Your task to perform on an android device: Open Android settings Image 0: 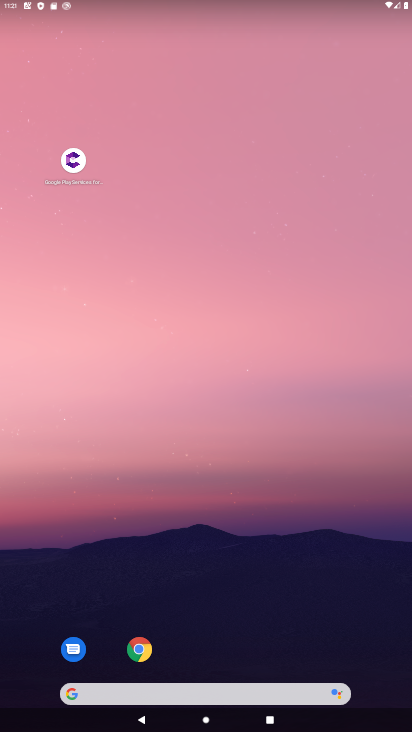
Step 0: press home button
Your task to perform on an android device: Open Android settings Image 1: 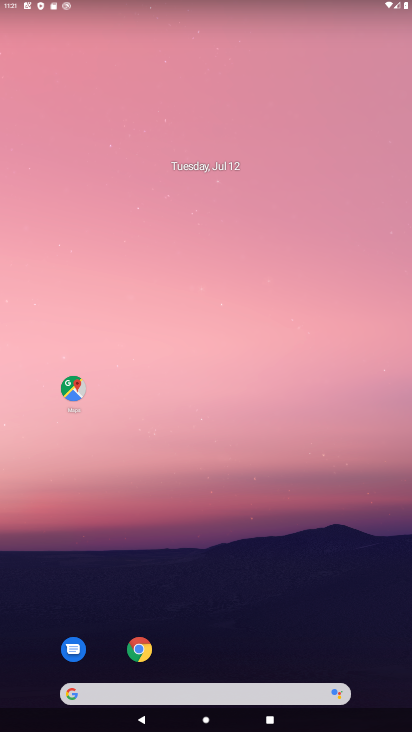
Step 1: drag from (216, 629) to (283, 12)
Your task to perform on an android device: Open Android settings Image 2: 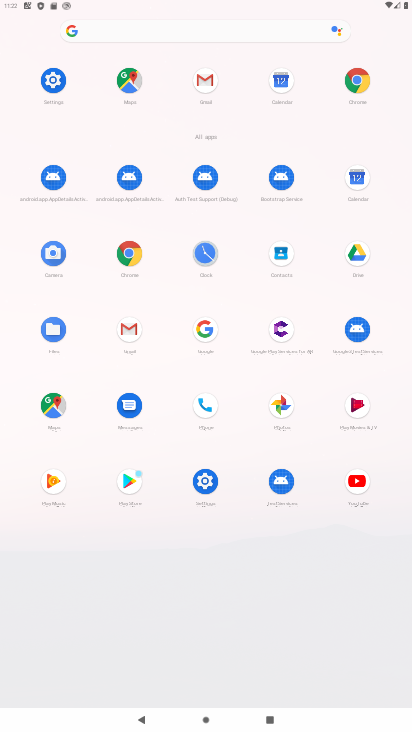
Step 2: click (199, 491)
Your task to perform on an android device: Open Android settings Image 3: 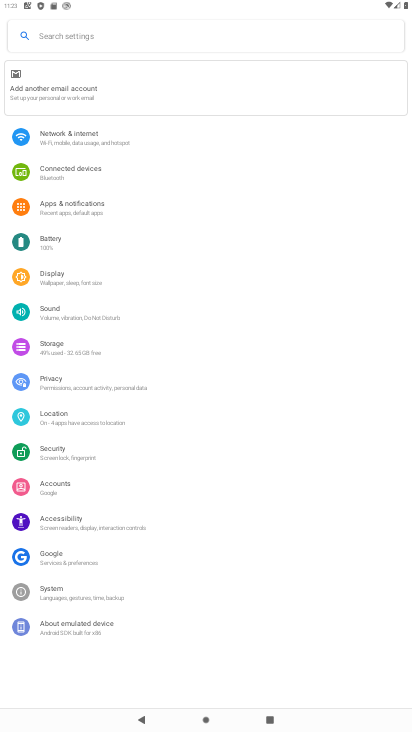
Step 3: click (44, 630)
Your task to perform on an android device: Open Android settings Image 4: 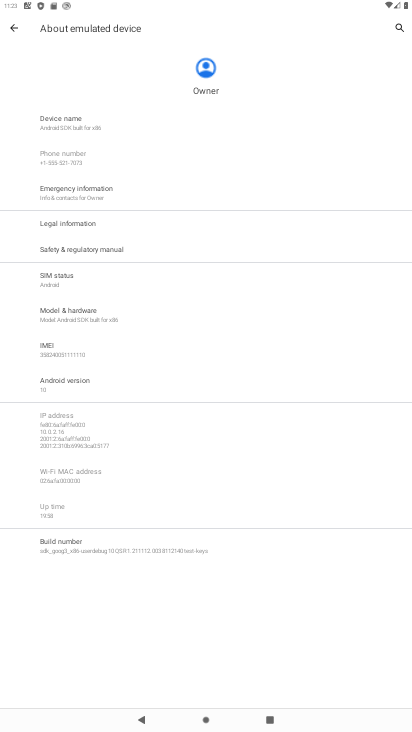
Step 4: click (59, 378)
Your task to perform on an android device: Open Android settings Image 5: 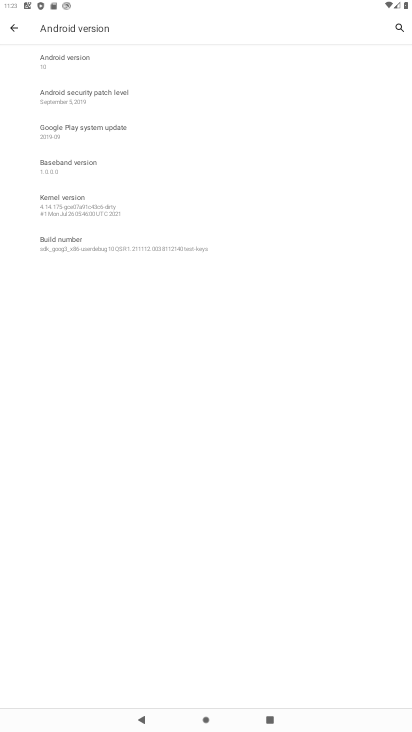
Step 5: task complete